Your task to perform on an android device: Is it going to rain this weekend? Image 0: 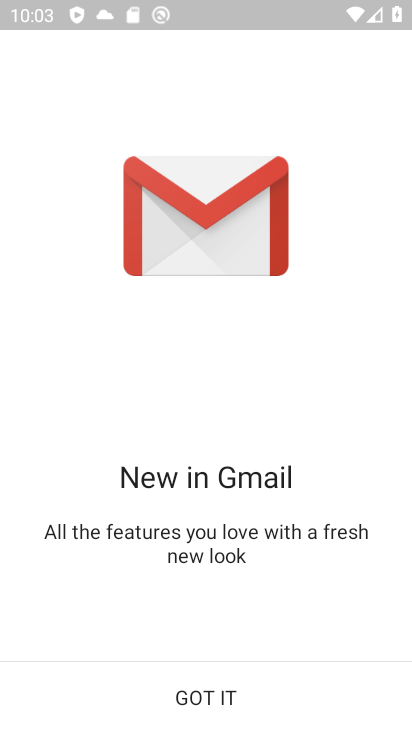
Step 0: press home button
Your task to perform on an android device: Is it going to rain this weekend? Image 1: 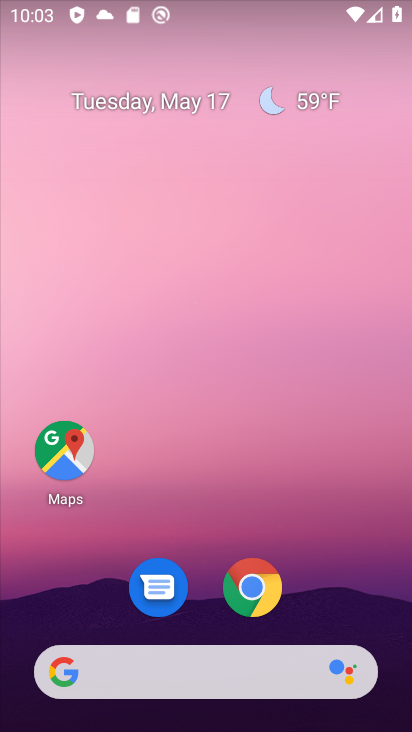
Step 1: drag from (322, 583) to (278, 174)
Your task to perform on an android device: Is it going to rain this weekend? Image 2: 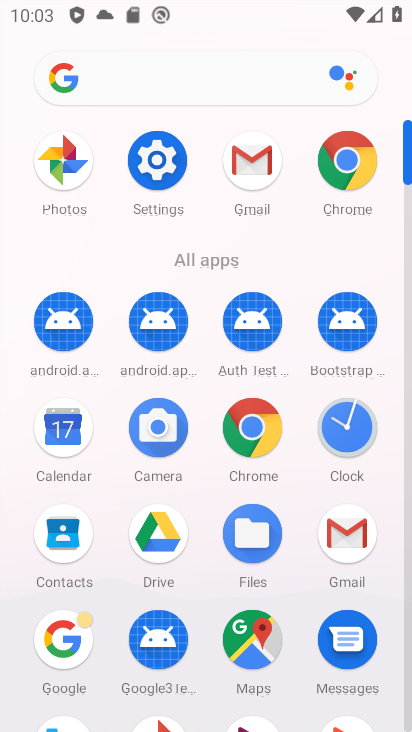
Step 2: click (74, 639)
Your task to perform on an android device: Is it going to rain this weekend? Image 3: 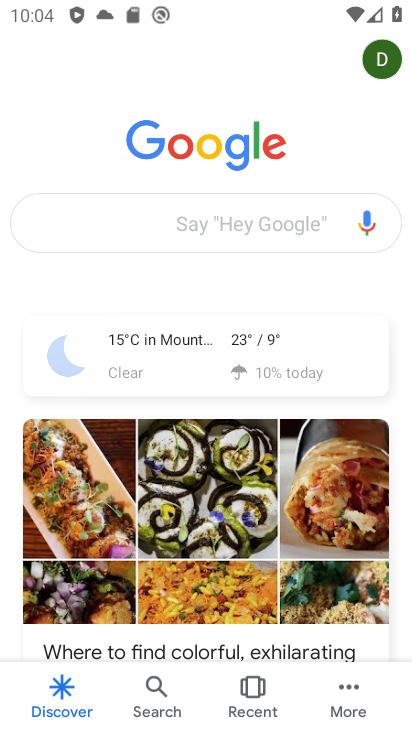
Step 3: click (264, 341)
Your task to perform on an android device: Is it going to rain this weekend? Image 4: 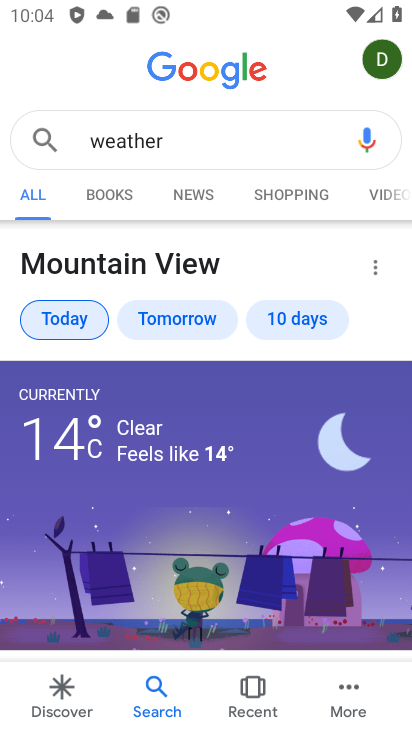
Step 4: click (281, 312)
Your task to perform on an android device: Is it going to rain this weekend? Image 5: 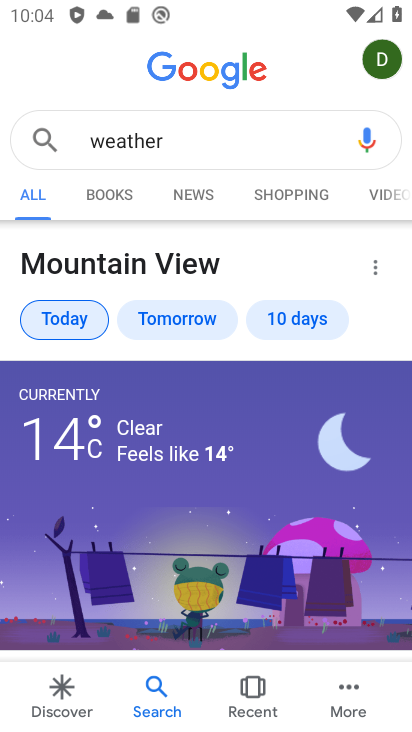
Step 5: click (281, 312)
Your task to perform on an android device: Is it going to rain this weekend? Image 6: 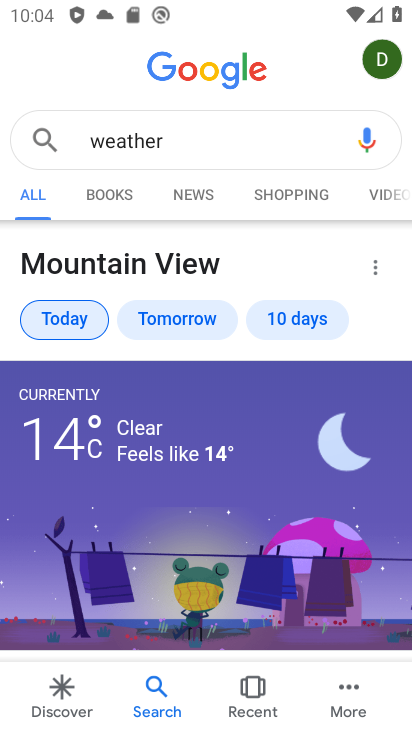
Step 6: click (298, 315)
Your task to perform on an android device: Is it going to rain this weekend? Image 7: 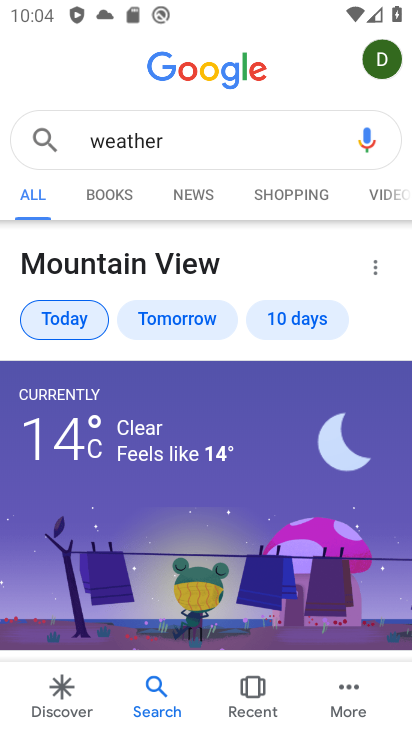
Step 7: task complete